Your task to perform on an android device: create a new album in the google photos Image 0: 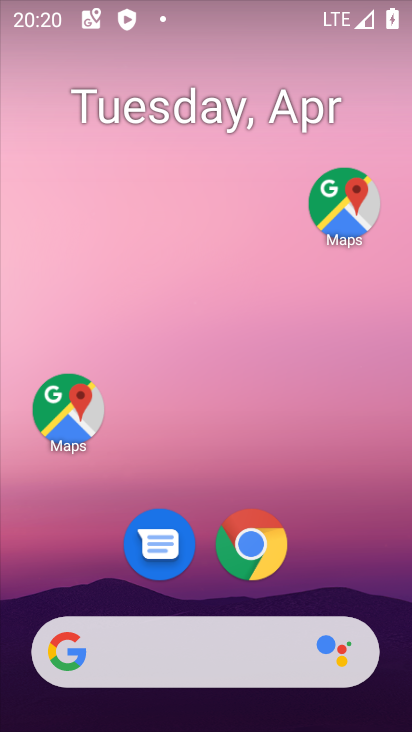
Step 0: drag from (256, 458) to (370, 45)
Your task to perform on an android device: create a new album in the google photos Image 1: 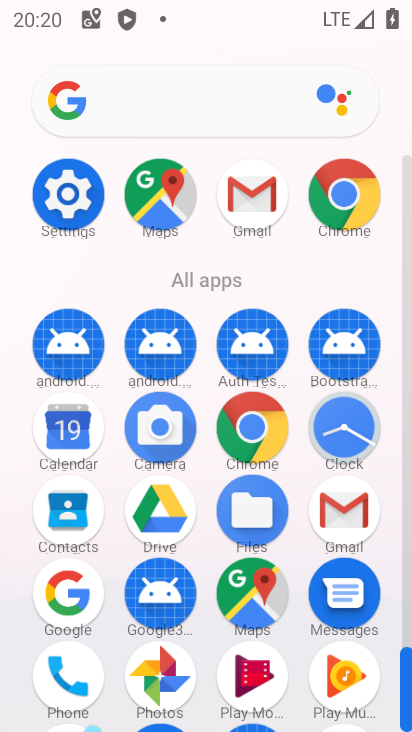
Step 1: drag from (201, 586) to (323, 214)
Your task to perform on an android device: create a new album in the google photos Image 2: 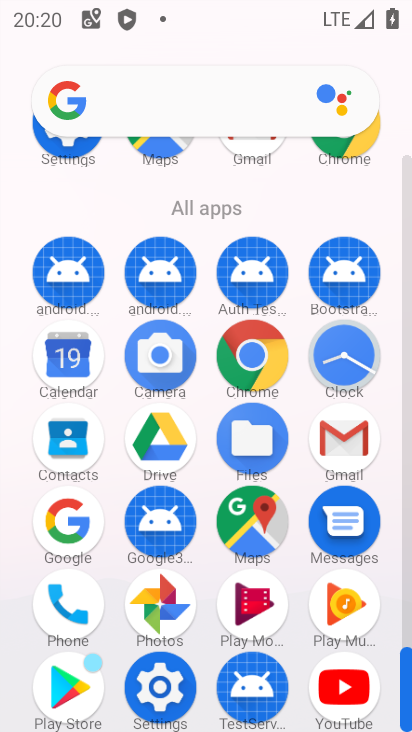
Step 2: click (171, 605)
Your task to perform on an android device: create a new album in the google photos Image 3: 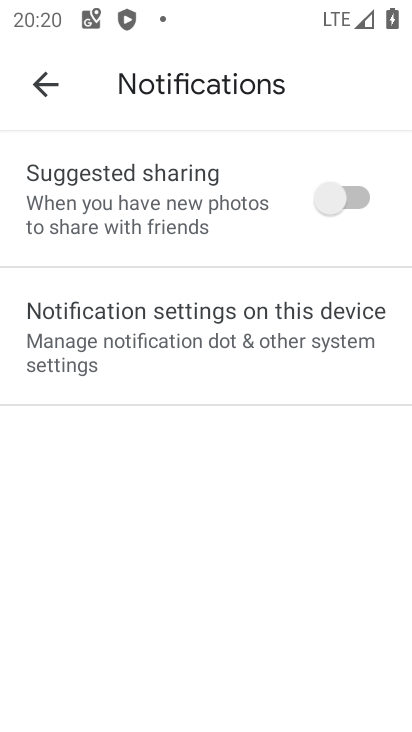
Step 3: click (40, 78)
Your task to perform on an android device: create a new album in the google photos Image 4: 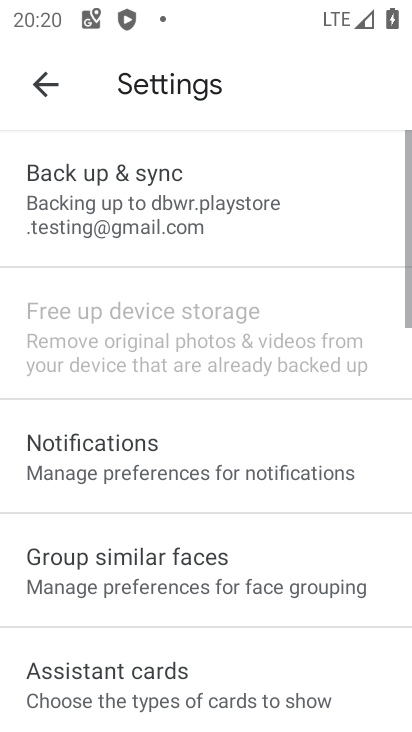
Step 4: click (40, 78)
Your task to perform on an android device: create a new album in the google photos Image 5: 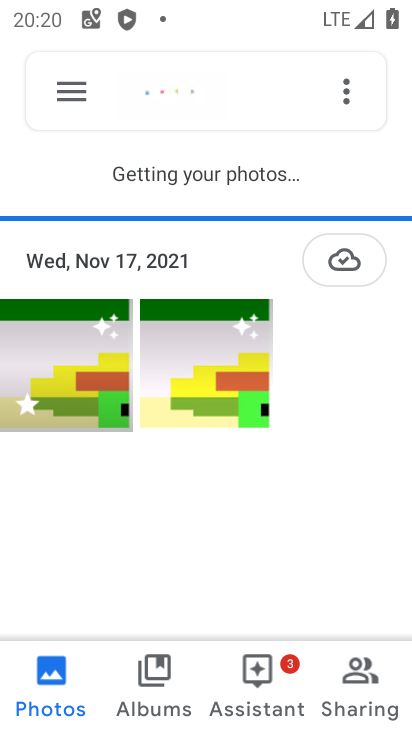
Step 5: click (159, 667)
Your task to perform on an android device: create a new album in the google photos Image 6: 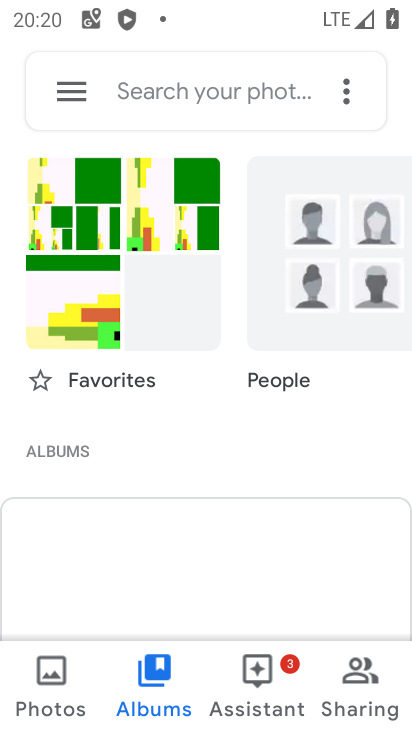
Step 6: drag from (123, 537) to (300, 110)
Your task to perform on an android device: create a new album in the google photos Image 7: 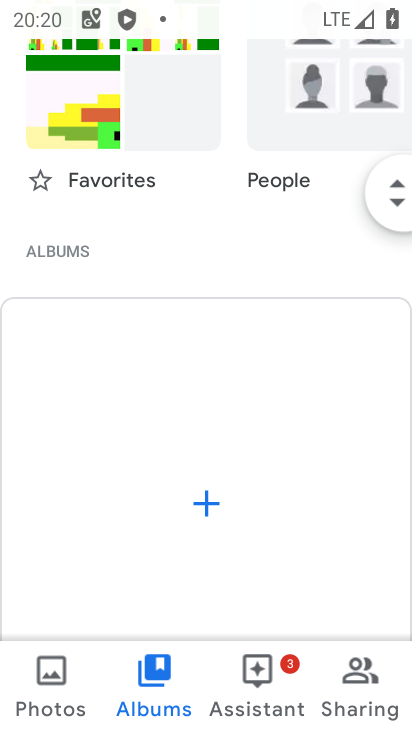
Step 7: click (203, 496)
Your task to perform on an android device: create a new album in the google photos Image 8: 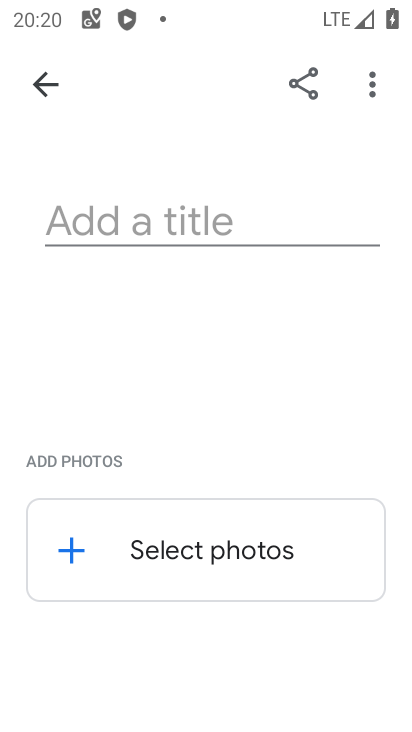
Step 8: click (188, 553)
Your task to perform on an android device: create a new album in the google photos Image 9: 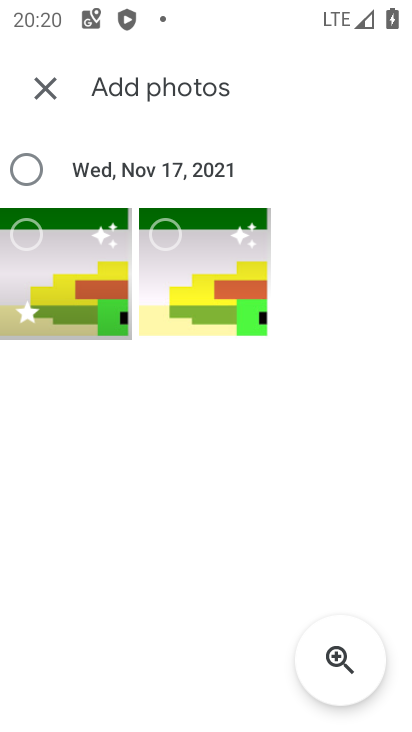
Step 9: click (20, 244)
Your task to perform on an android device: create a new album in the google photos Image 10: 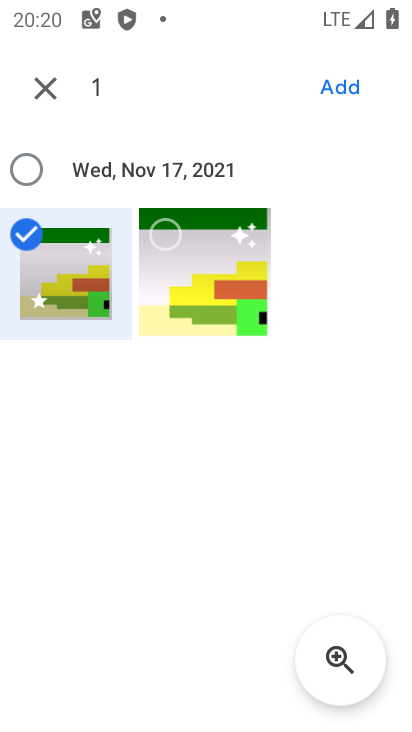
Step 10: click (175, 229)
Your task to perform on an android device: create a new album in the google photos Image 11: 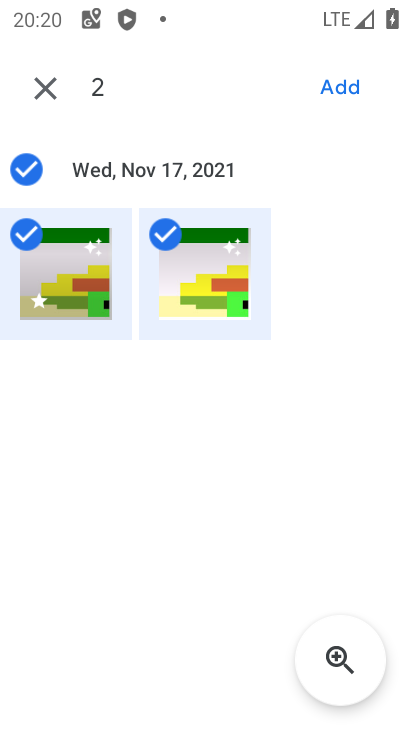
Step 11: click (354, 86)
Your task to perform on an android device: create a new album in the google photos Image 12: 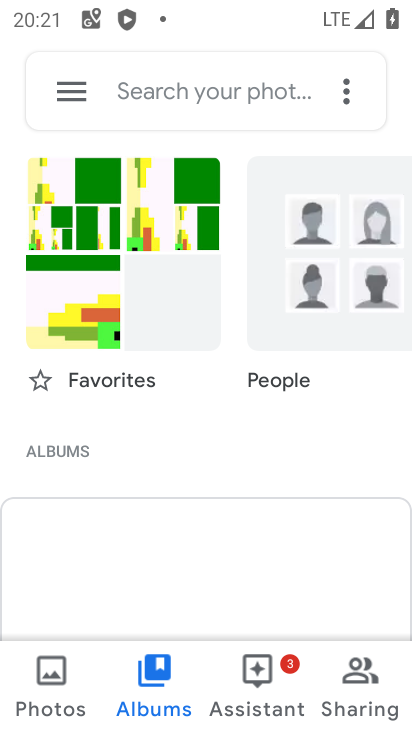
Step 12: task complete